Your task to perform on an android device: Open ESPN.com Image 0: 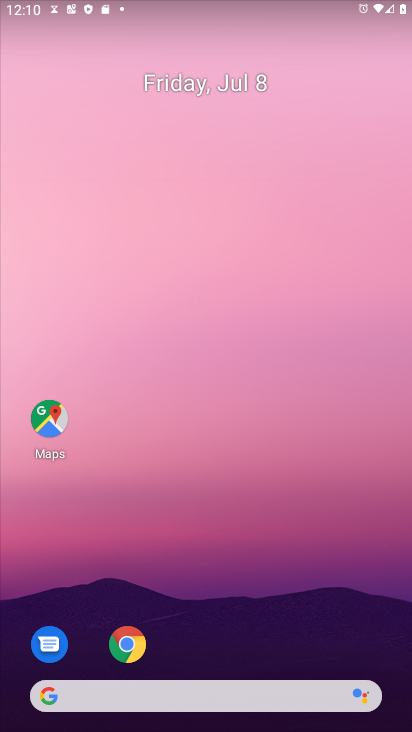
Step 0: click (134, 635)
Your task to perform on an android device: Open ESPN.com Image 1: 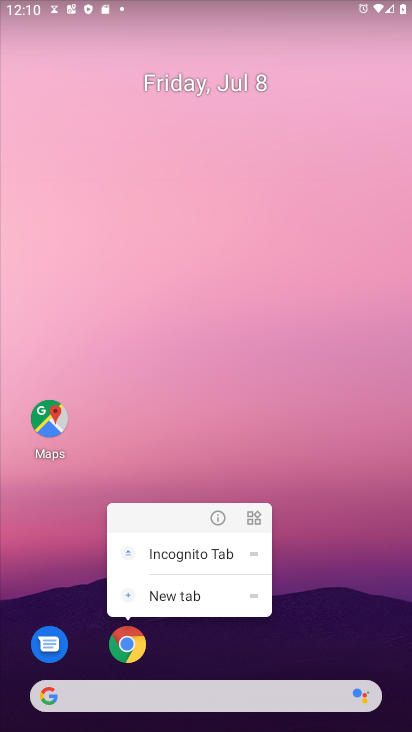
Step 1: click (134, 638)
Your task to perform on an android device: Open ESPN.com Image 2: 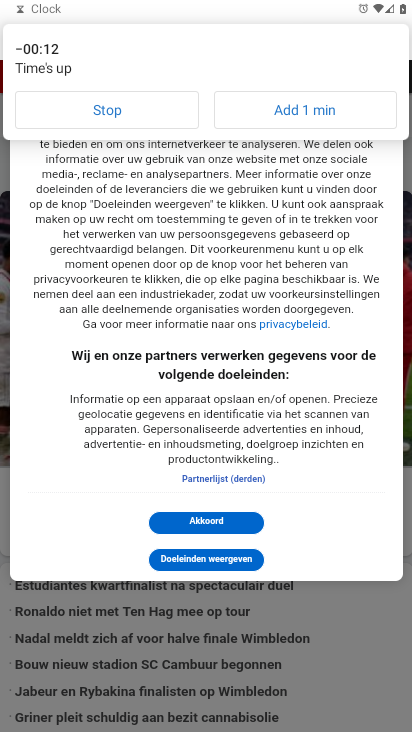
Step 2: click (152, 107)
Your task to perform on an android device: Open ESPN.com Image 3: 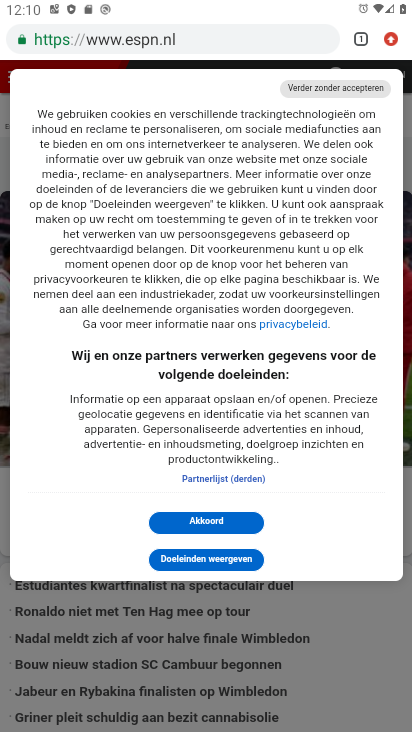
Step 3: task complete